Your task to perform on an android device: set an alarm Image 0: 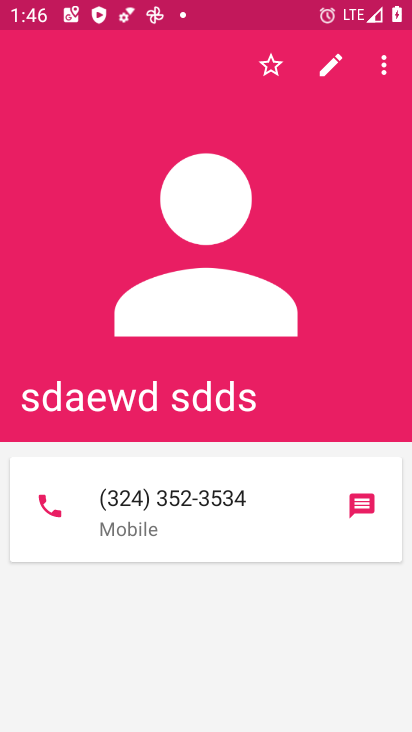
Step 0: press home button
Your task to perform on an android device: set an alarm Image 1: 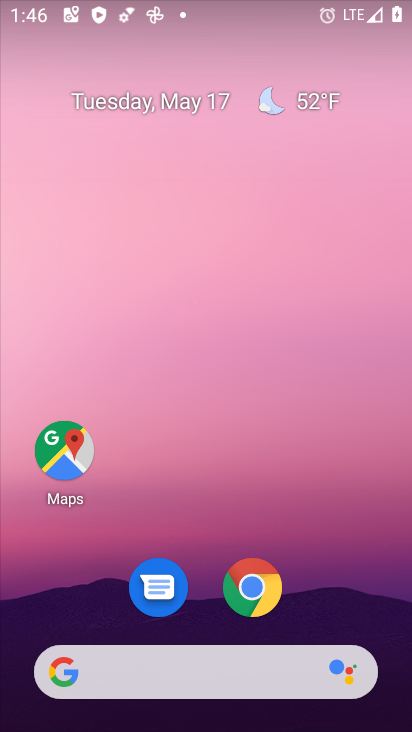
Step 1: drag from (377, 524) to (261, 7)
Your task to perform on an android device: set an alarm Image 2: 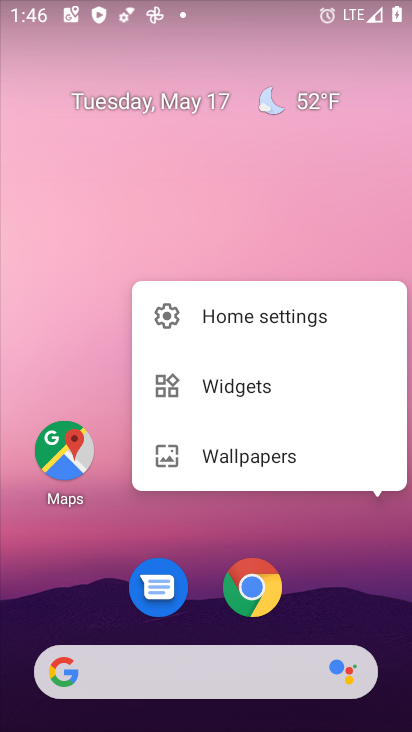
Step 2: click (80, 590)
Your task to perform on an android device: set an alarm Image 3: 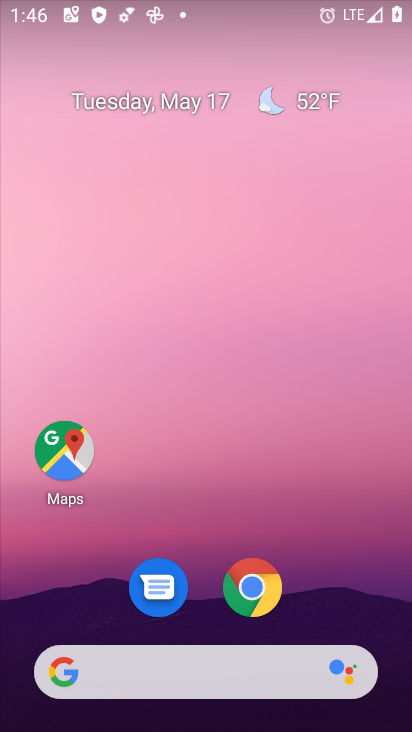
Step 3: drag from (208, 520) to (111, 8)
Your task to perform on an android device: set an alarm Image 4: 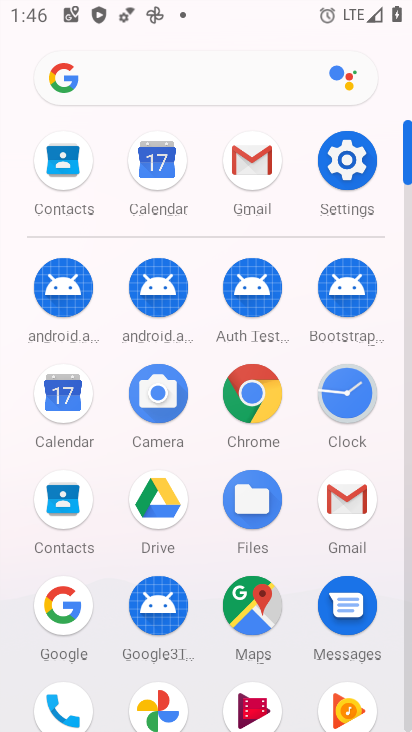
Step 4: click (333, 401)
Your task to perform on an android device: set an alarm Image 5: 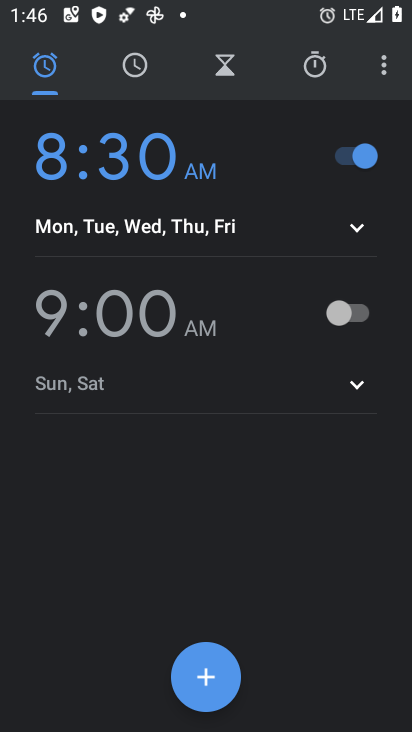
Step 5: task complete